Your task to perform on an android device: toggle sleep mode Image 0: 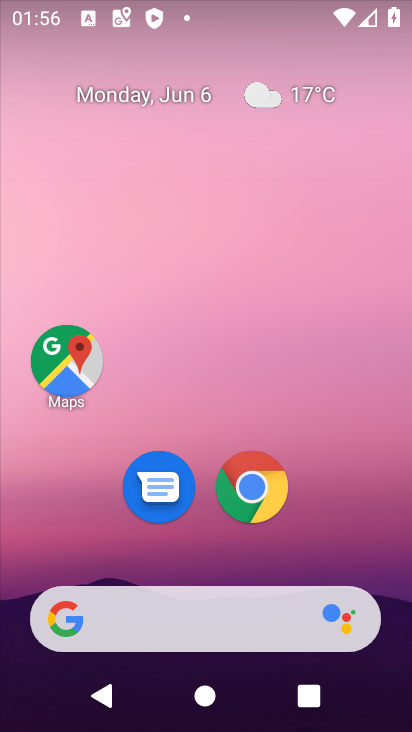
Step 0: drag from (396, 625) to (339, 82)
Your task to perform on an android device: toggle sleep mode Image 1: 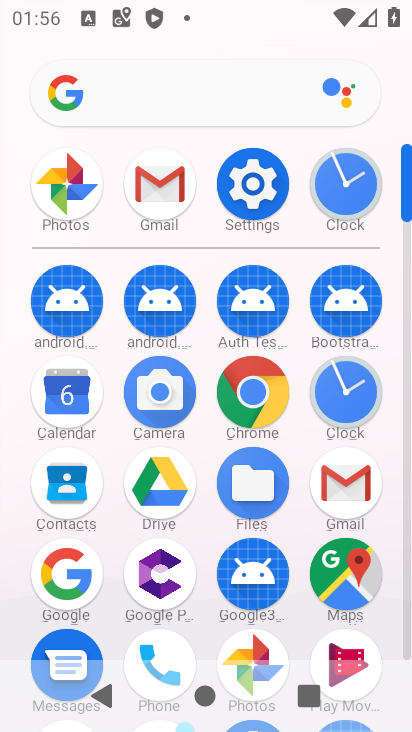
Step 1: click (404, 646)
Your task to perform on an android device: toggle sleep mode Image 2: 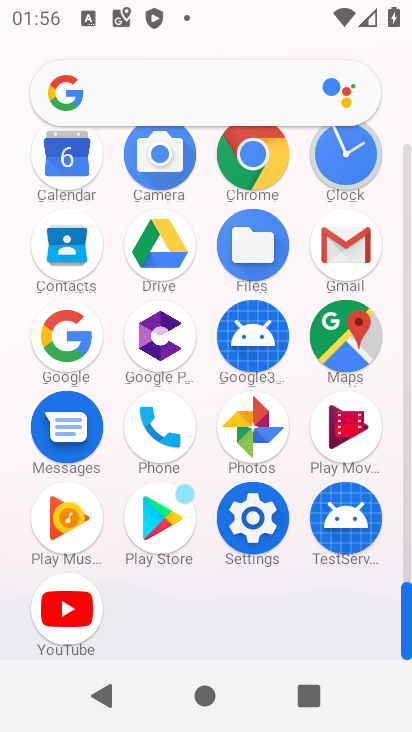
Step 2: click (252, 517)
Your task to perform on an android device: toggle sleep mode Image 3: 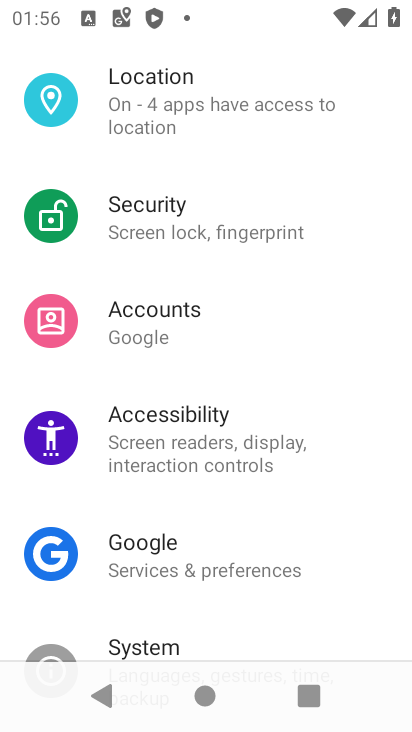
Step 3: drag from (337, 190) to (329, 503)
Your task to perform on an android device: toggle sleep mode Image 4: 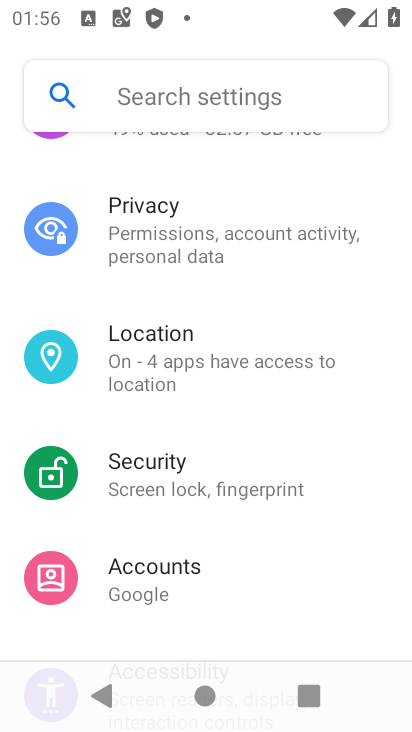
Step 4: drag from (362, 245) to (339, 551)
Your task to perform on an android device: toggle sleep mode Image 5: 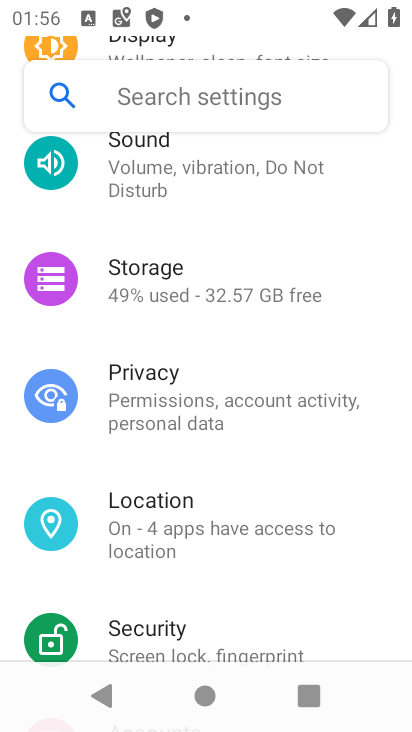
Step 5: drag from (362, 248) to (343, 550)
Your task to perform on an android device: toggle sleep mode Image 6: 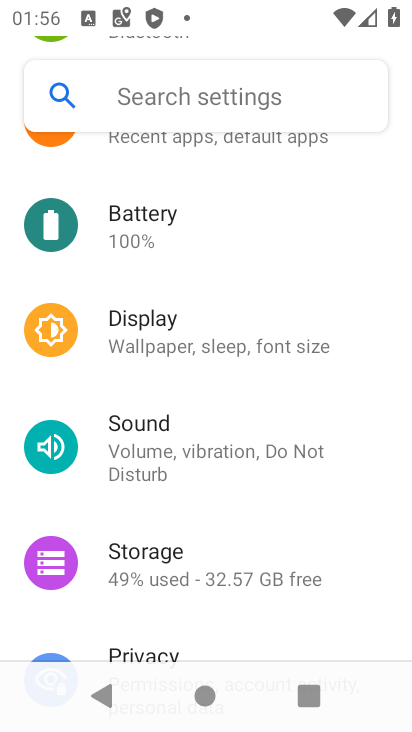
Step 6: click (145, 339)
Your task to perform on an android device: toggle sleep mode Image 7: 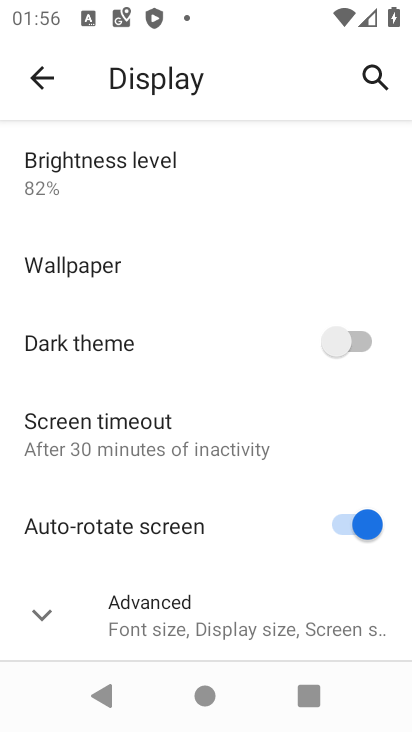
Step 7: click (58, 611)
Your task to perform on an android device: toggle sleep mode Image 8: 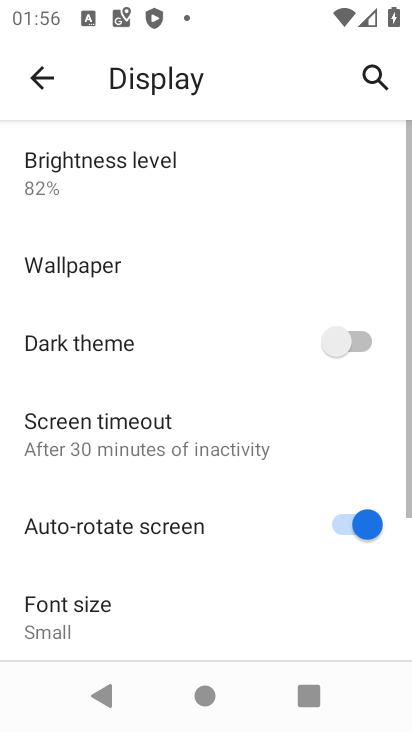
Step 8: task complete